Your task to perform on an android device: see tabs open on other devices in the chrome app Image 0: 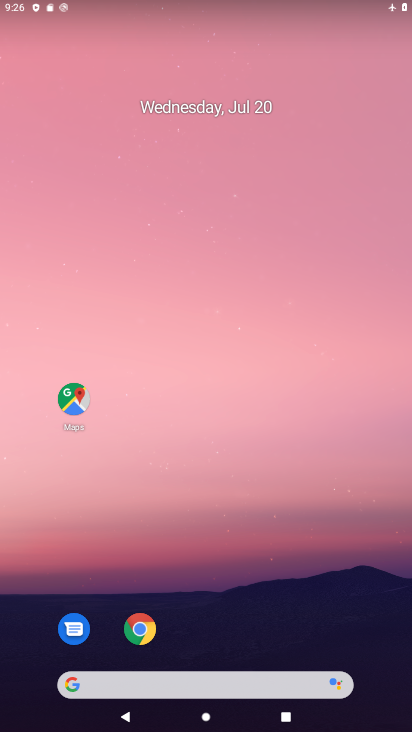
Step 0: drag from (196, 460) to (314, 0)
Your task to perform on an android device: see tabs open on other devices in the chrome app Image 1: 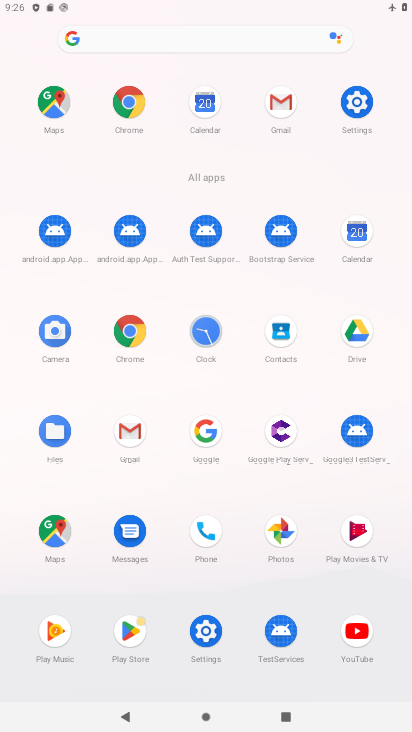
Step 1: click (135, 109)
Your task to perform on an android device: see tabs open on other devices in the chrome app Image 2: 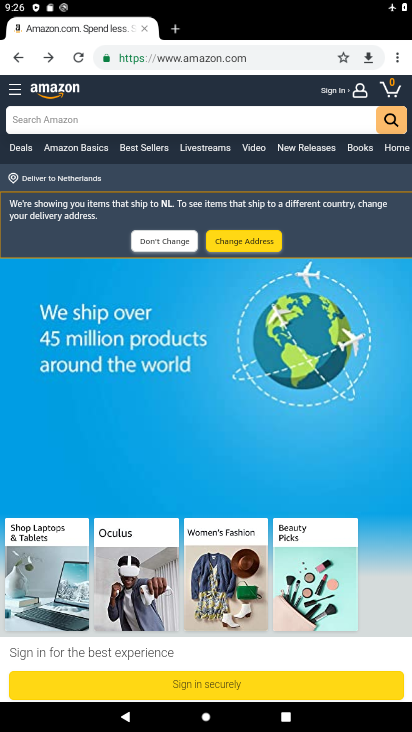
Step 2: drag from (404, 59) to (311, 148)
Your task to perform on an android device: see tabs open on other devices in the chrome app Image 3: 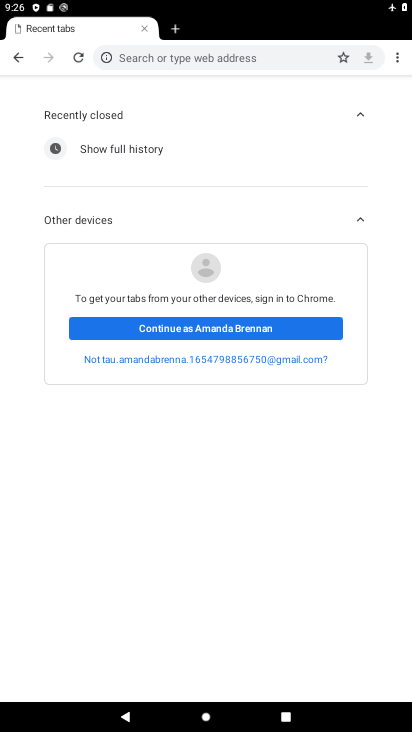
Step 3: click (214, 330)
Your task to perform on an android device: see tabs open on other devices in the chrome app Image 4: 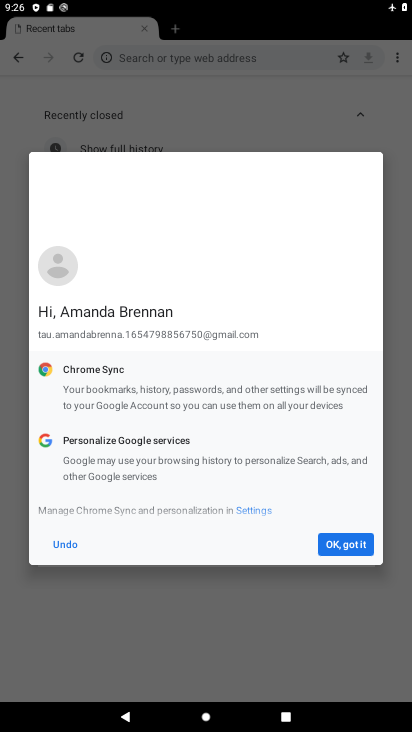
Step 4: click (336, 545)
Your task to perform on an android device: see tabs open on other devices in the chrome app Image 5: 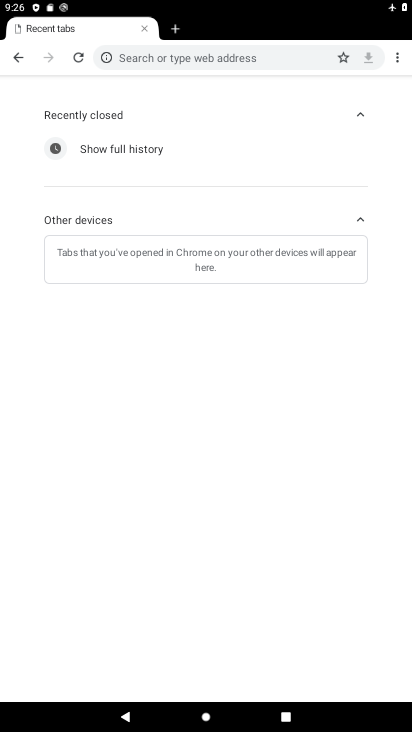
Step 5: task complete